Your task to perform on an android device: Open Android settings Image 0: 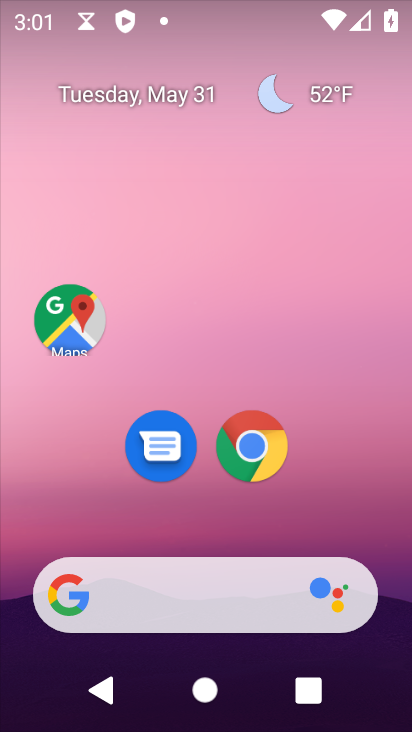
Step 0: drag from (321, 506) to (286, 85)
Your task to perform on an android device: Open Android settings Image 1: 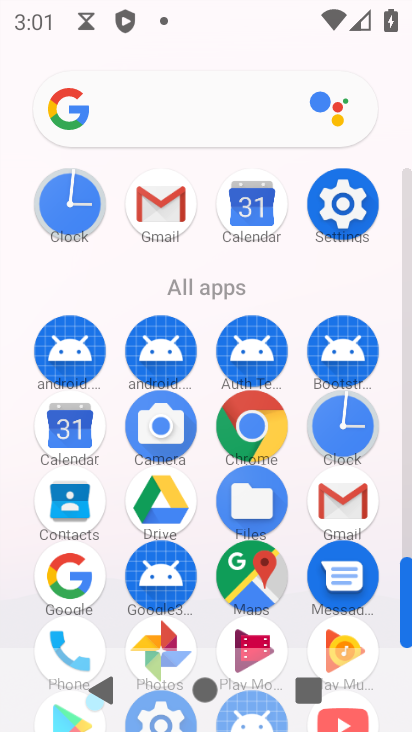
Step 1: click (343, 205)
Your task to perform on an android device: Open Android settings Image 2: 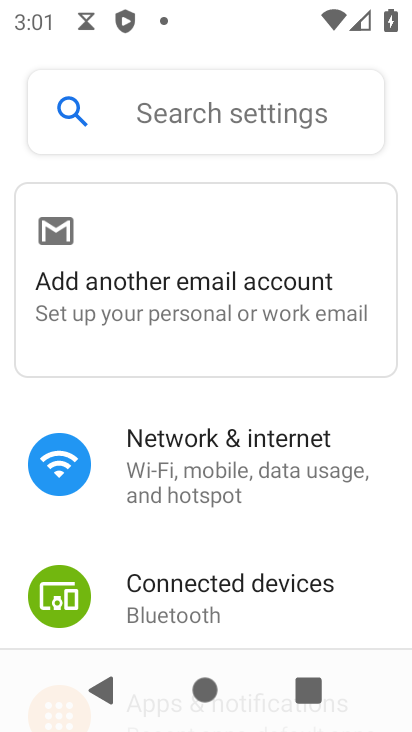
Step 2: task complete